Your task to perform on an android device: check storage Image 0: 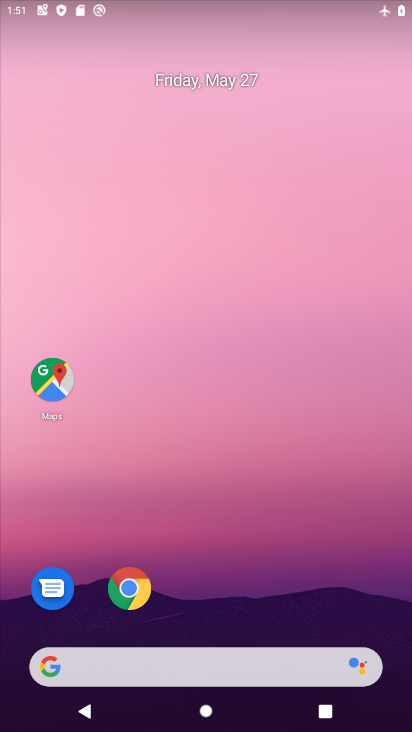
Step 0: drag from (326, 630) to (270, 28)
Your task to perform on an android device: check storage Image 1: 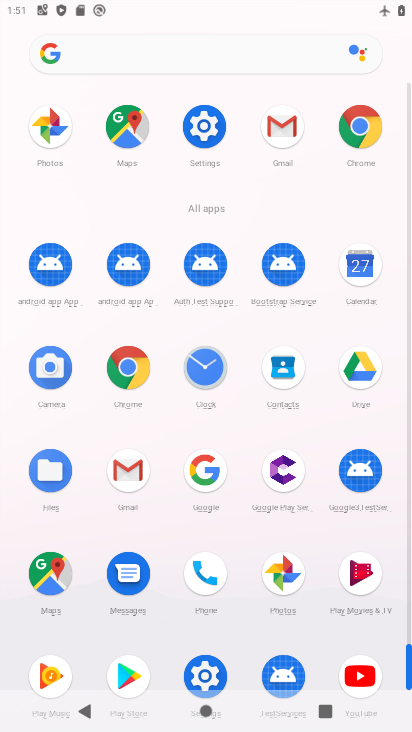
Step 1: click (205, 672)
Your task to perform on an android device: check storage Image 2: 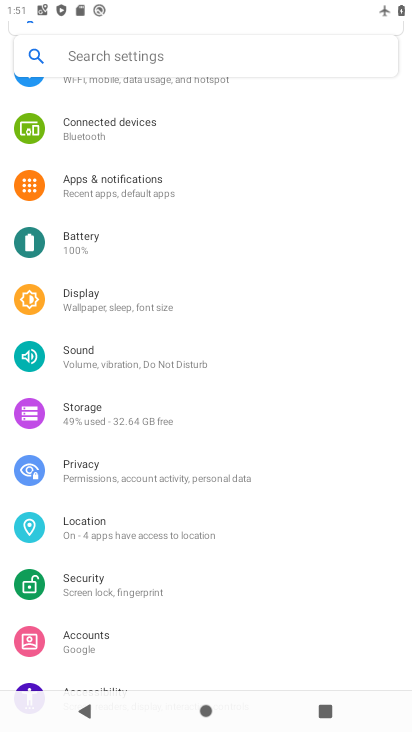
Step 2: click (98, 408)
Your task to perform on an android device: check storage Image 3: 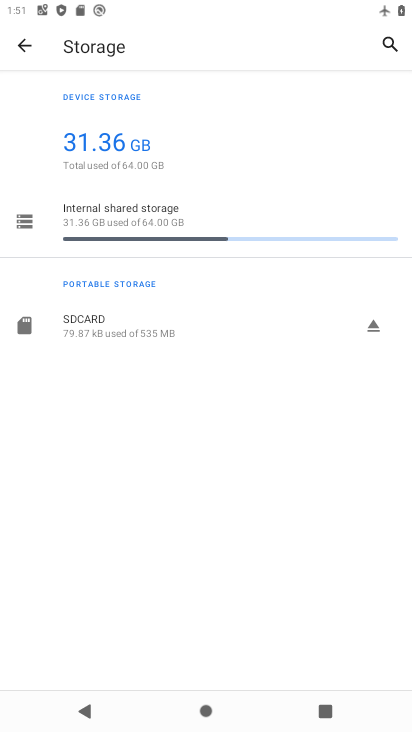
Step 3: task complete